Your task to perform on an android device: install app "Pinterest" Image 0: 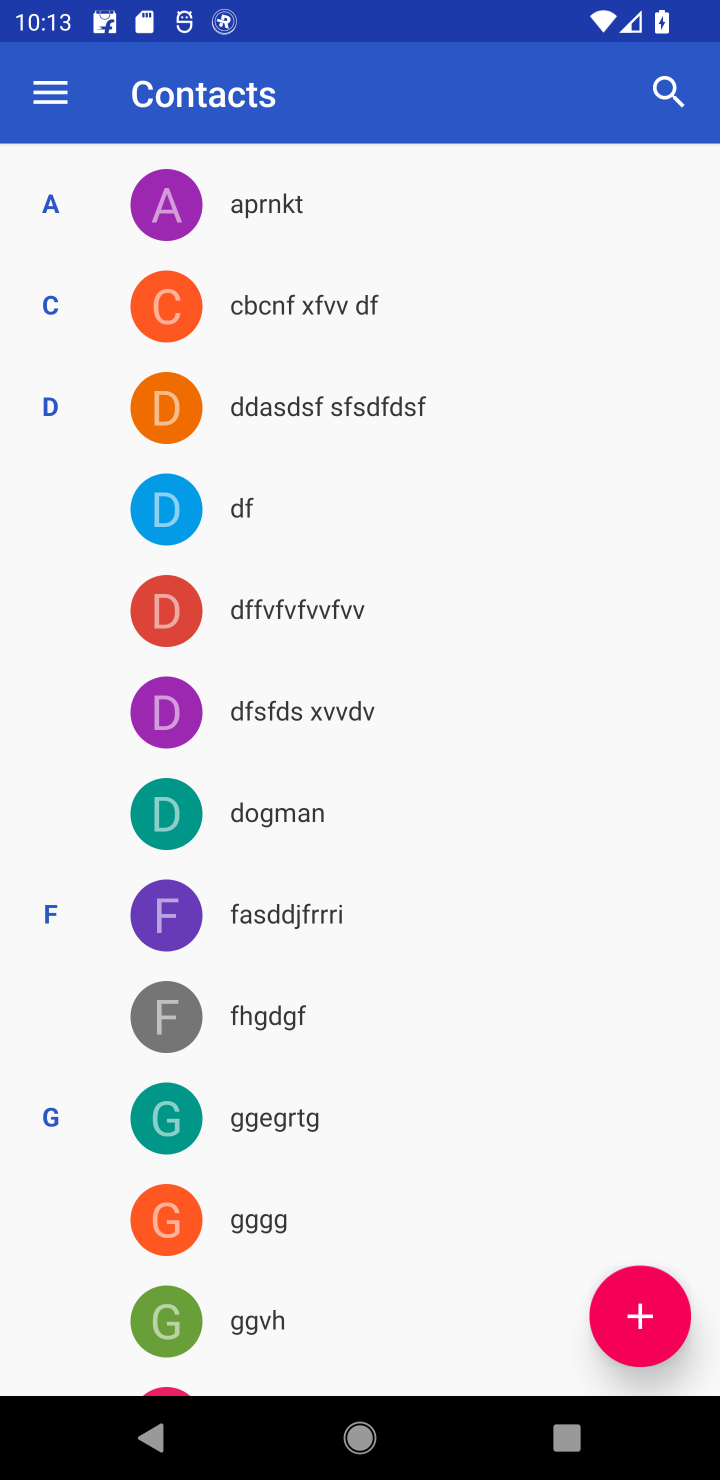
Step 0: press home button
Your task to perform on an android device: install app "Pinterest" Image 1: 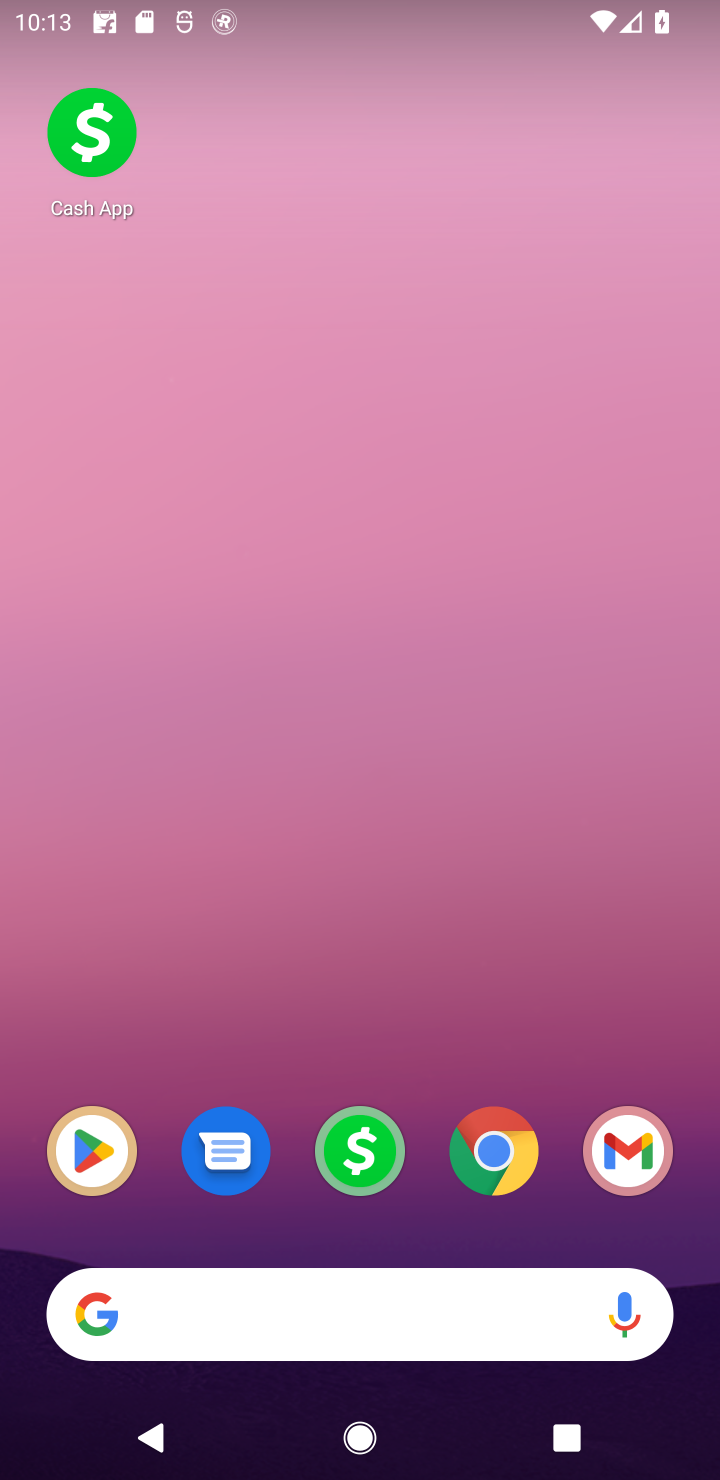
Step 1: click (87, 1178)
Your task to perform on an android device: install app "Pinterest" Image 2: 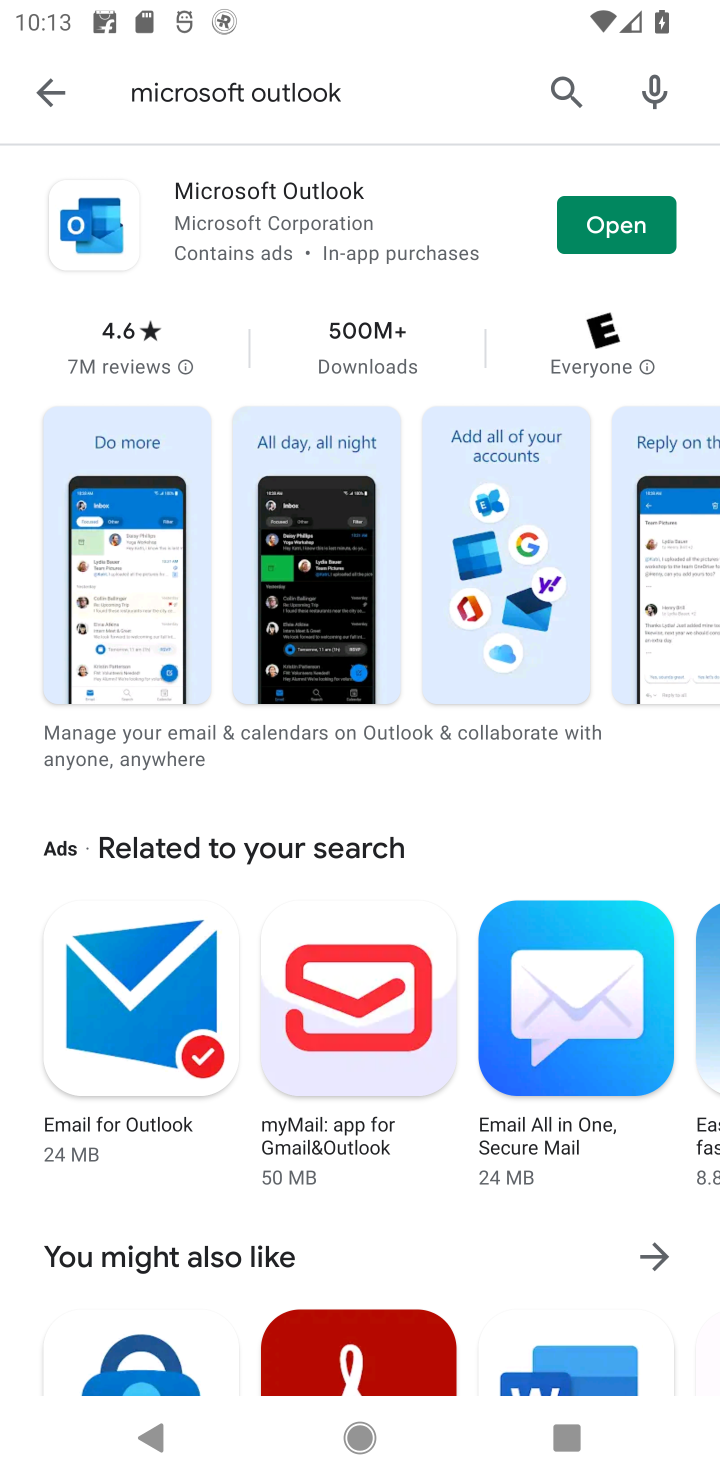
Step 2: click (554, 98)
Your task to perform on an android device: install app "Pinterest" Image 3: 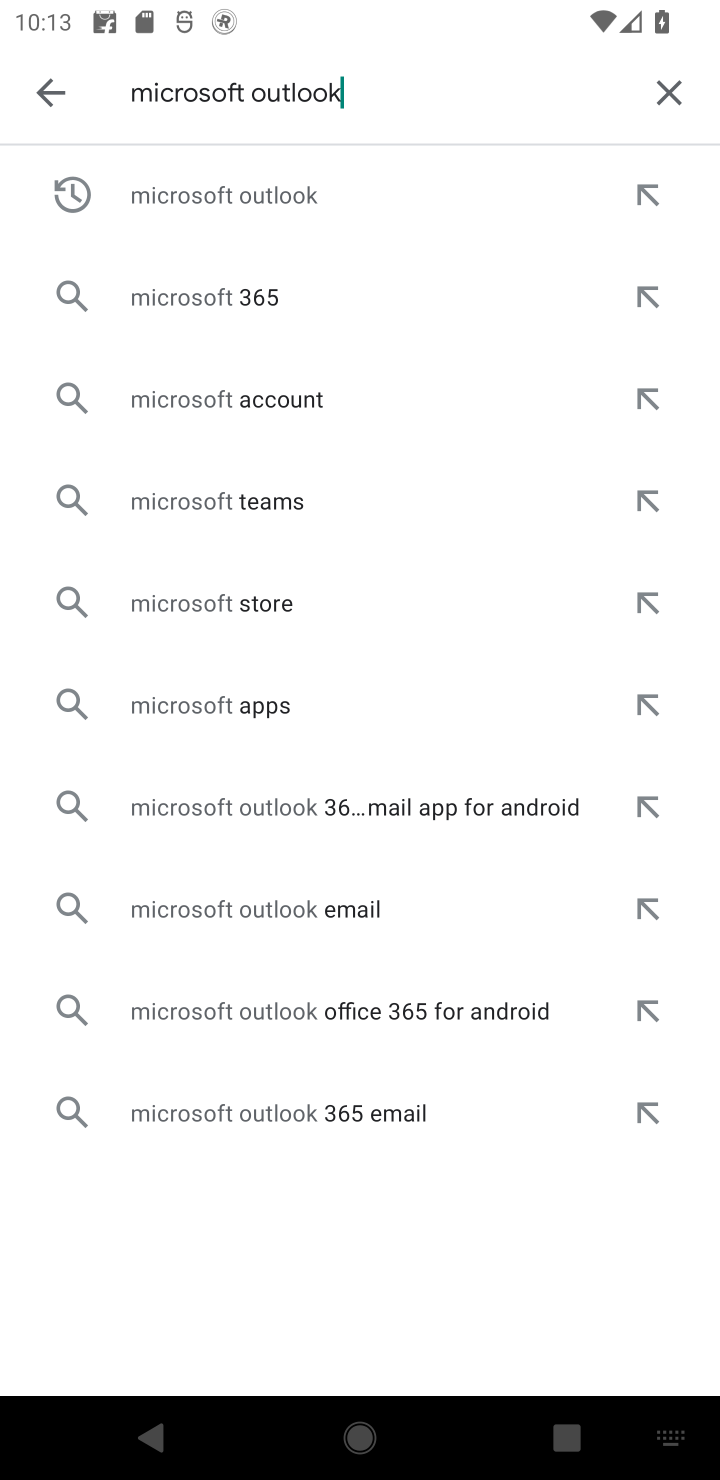
Step 3: click (667, 90)
Your task to perform on an android device: install app "Pinterest" Image 4: 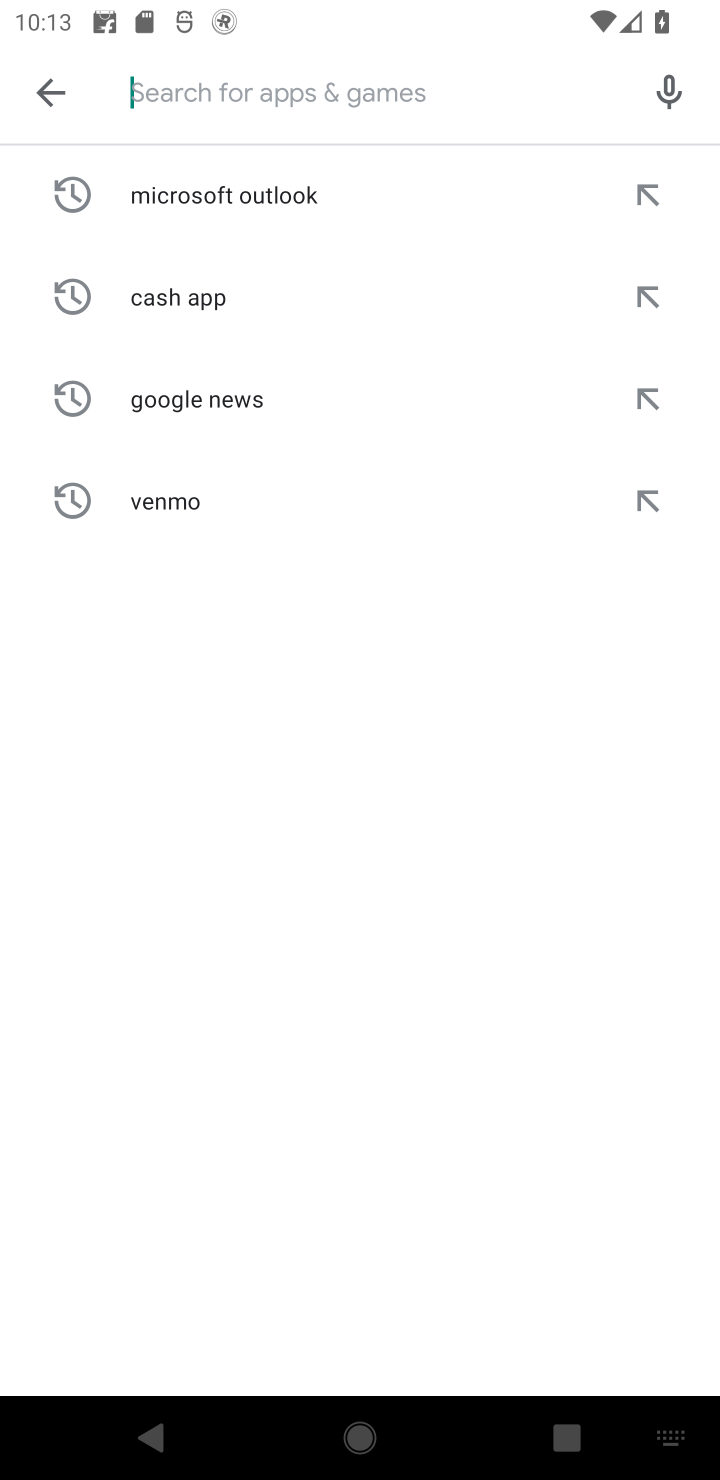
Step 4: type "Pinterest"
Your task to perform on an android device: install app "Pinterest" Image 5: 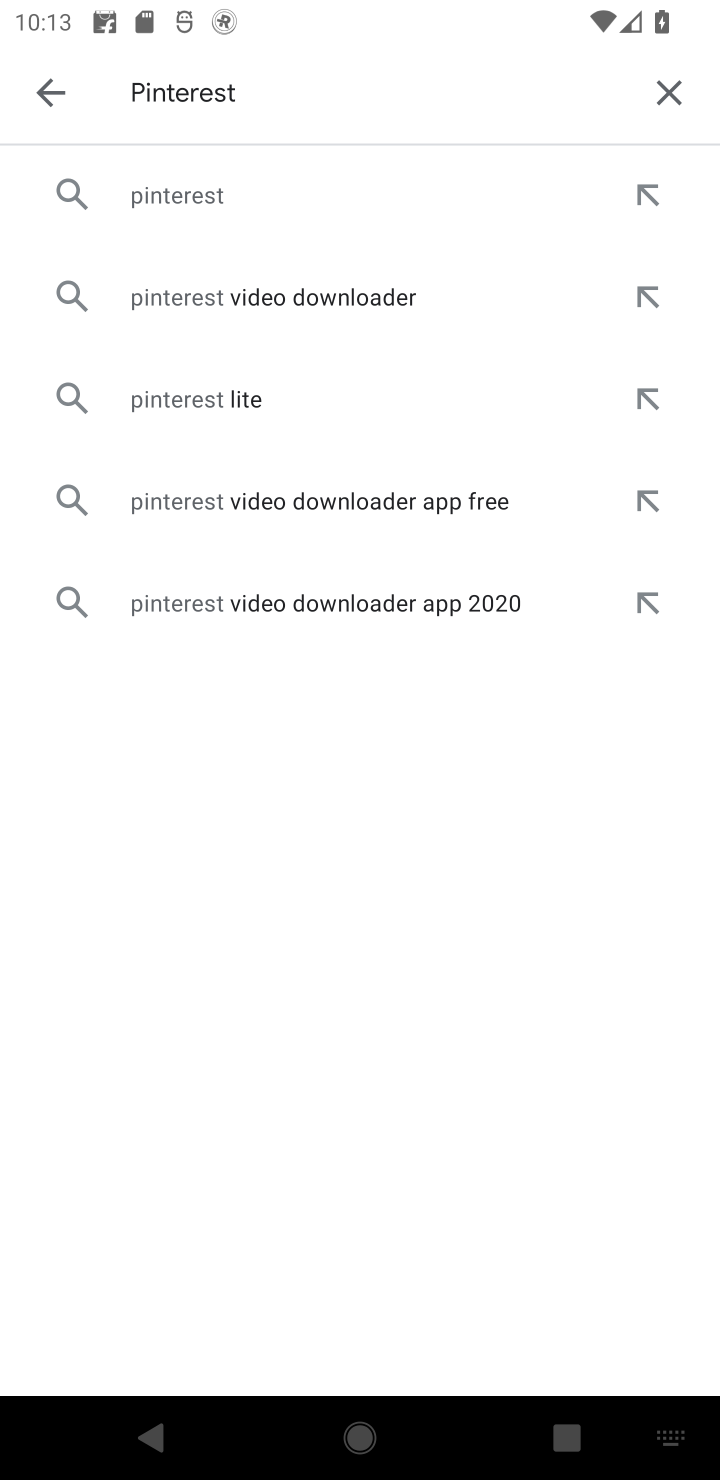
Step 5: click (228, 198)
Your task to perform on an android device: install app "Pinterest" Image 6: 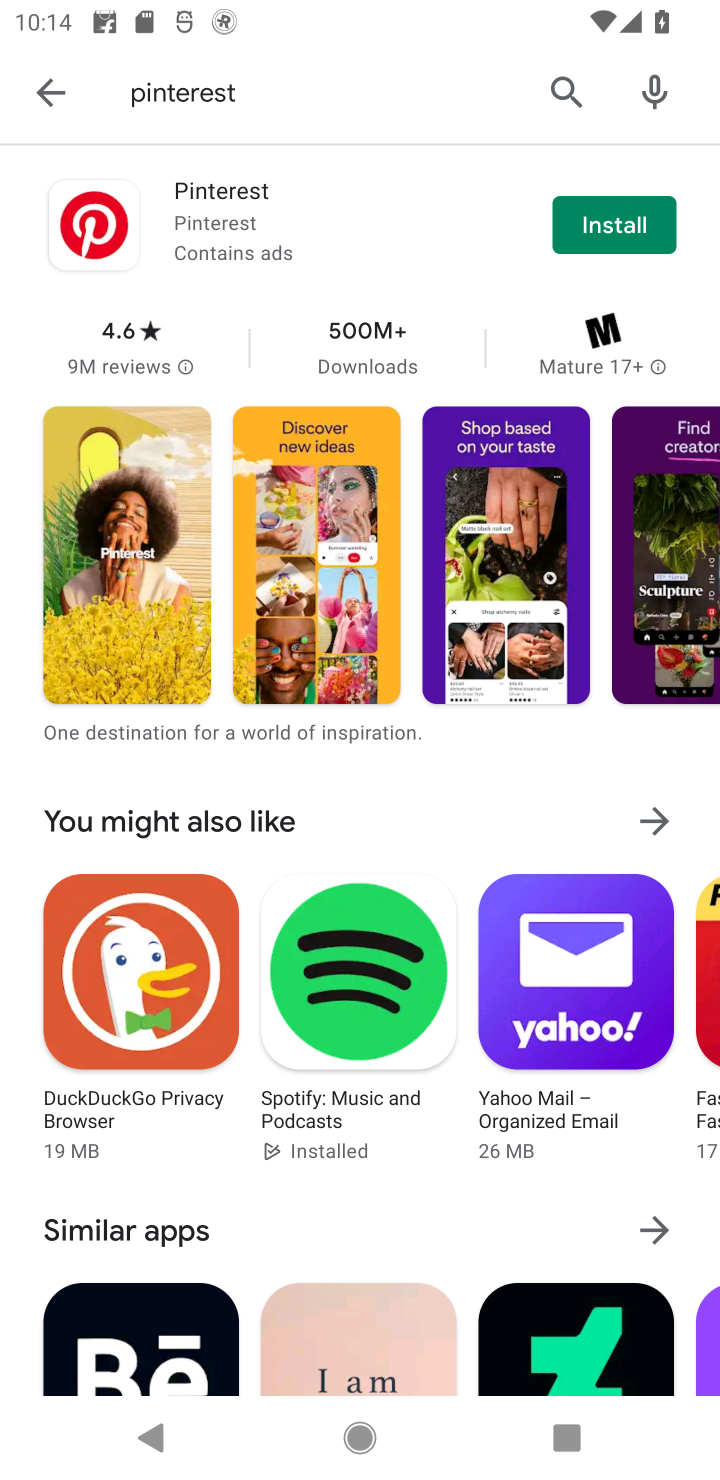
Step 6: click (595, 244)
Your task to perform on an android device: install app "Pinterest" Image 7: 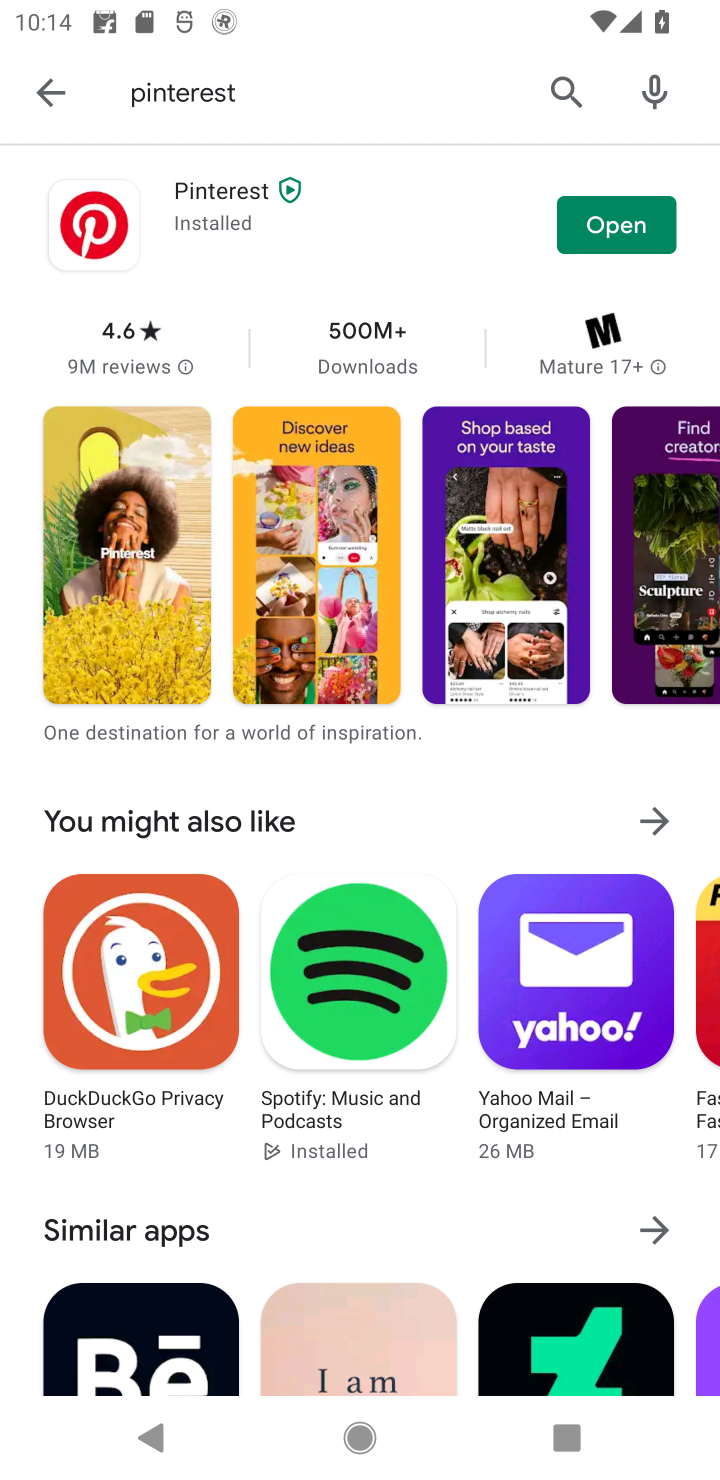
Step 7: task complete